Your task to perform on an android device: uninstall "Contacts" Image 0: 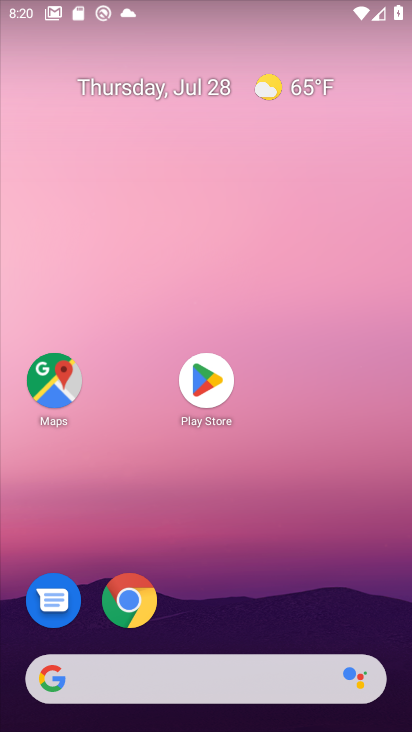
Step 0: click (194, 389)
Your task to perform on an android device: uninstall "Contacts" Image 1: 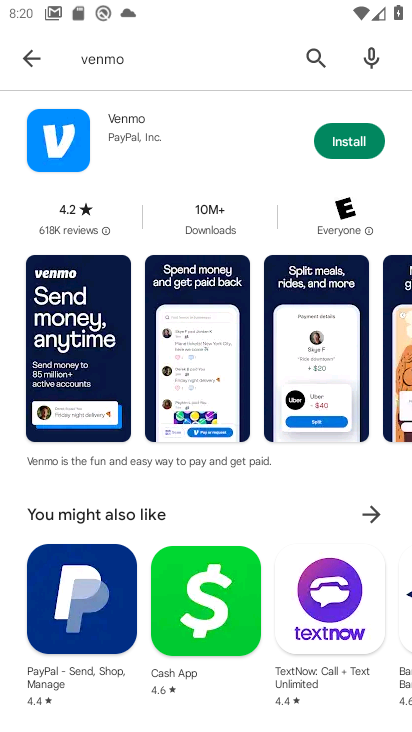
Step 1: click (309, 47)
Your task to perform on an android device: uninstall "Contacts" Image 2: 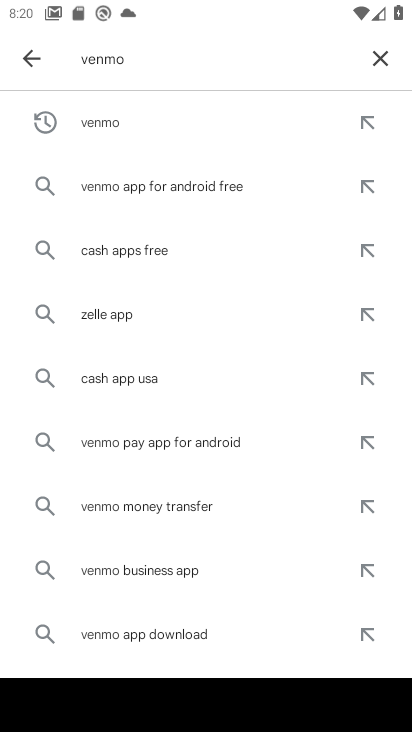
Step 2: click (387, 55)
Your task to perform on an android device: uninstall "Contacts" Image 3: 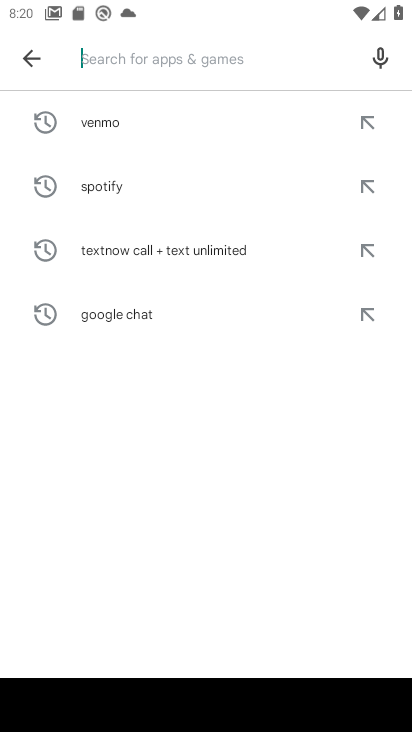
Step 3: type "Contacts"
Your task to perform on an android device: uninstall "Contacts" Image 4: 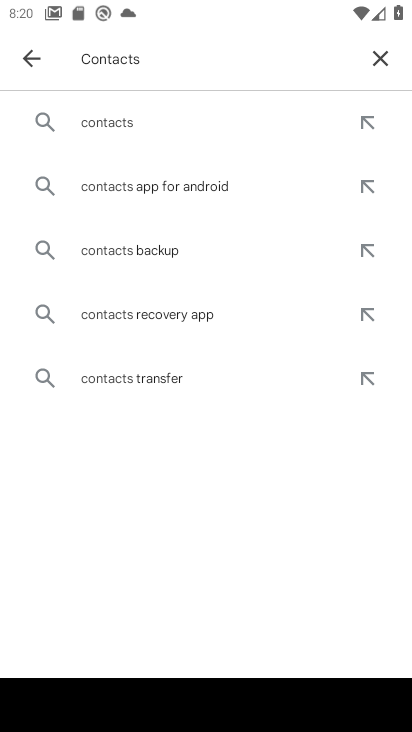
Step 4: click (120, 122)
Your task to perform on an android device: uninstall "Contacts" Image 5: 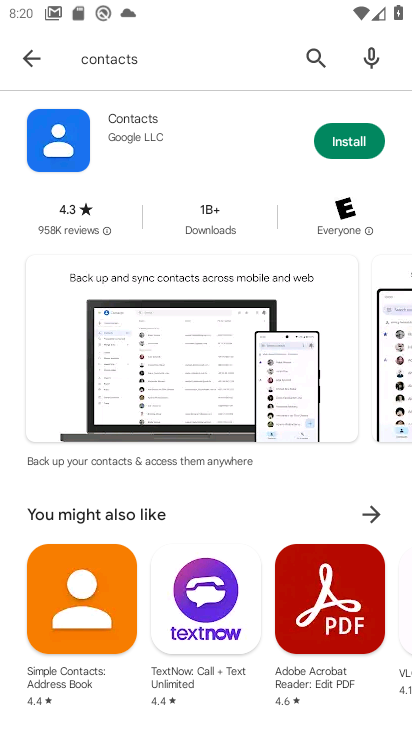
Step 5: task complete